Your task to perform on an android device: find snoozed emails in the gmail app Image 0: 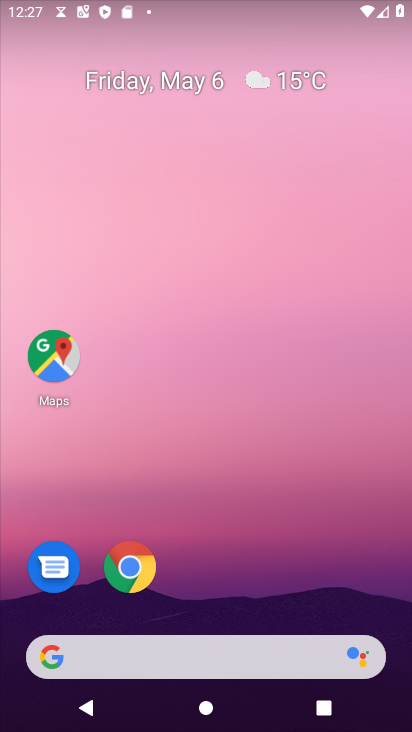
Step 0: drag from (318, 495) to (273, 64)
Your task to perform on an android device: find snoozed emails in the gmail app Image 1: 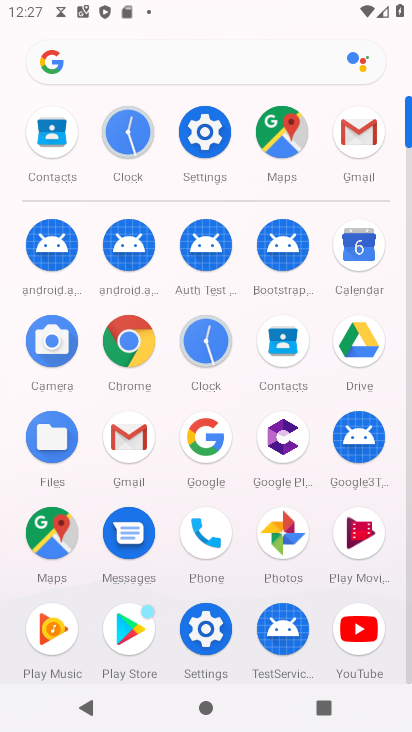
Step 1: click (363, 138)
Your task to perform on an android device: find snoozed emails in the gmail app Image 2: 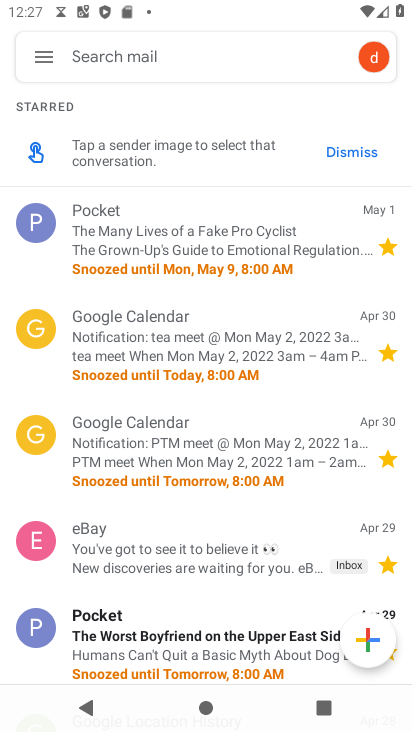
Step 2: click (43, 59)
Your task to perform on an android device: find snoozed emails in the gmail app Image 3: 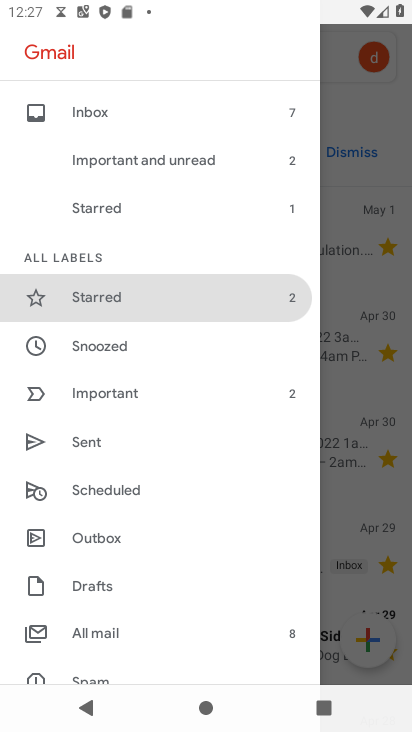
Step 3: click (105, 339)
Your task to perform on an android device: find snoozed emails in the gmail app Image 4: 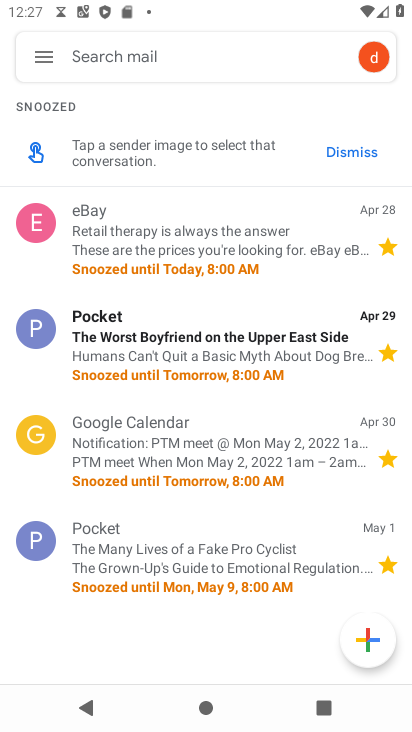
Step 4: task complete